Your task to perform on an android device: open app "Google Home" Image 0: 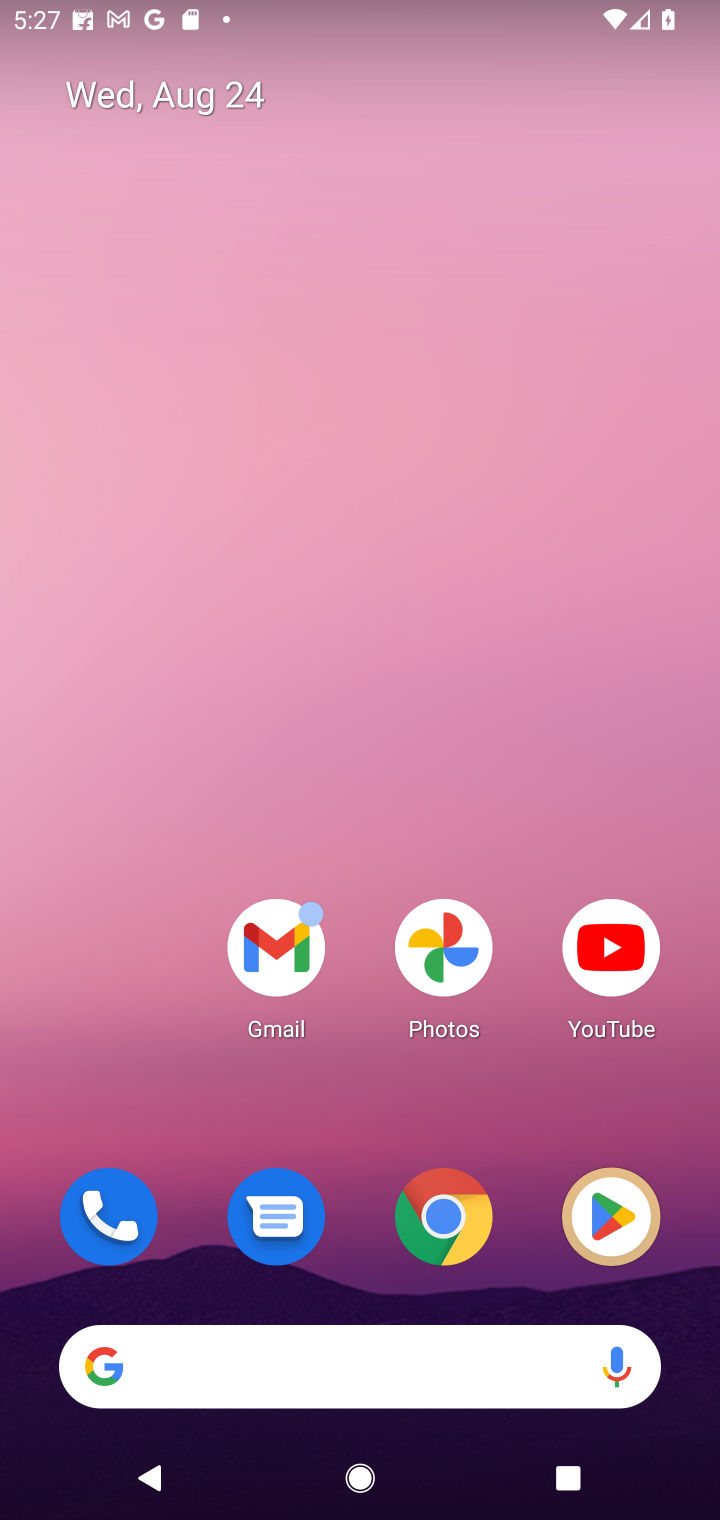
Step 0: click (614, 1225)
Your task to perform on an android device: open app "Google Home" Image 1: 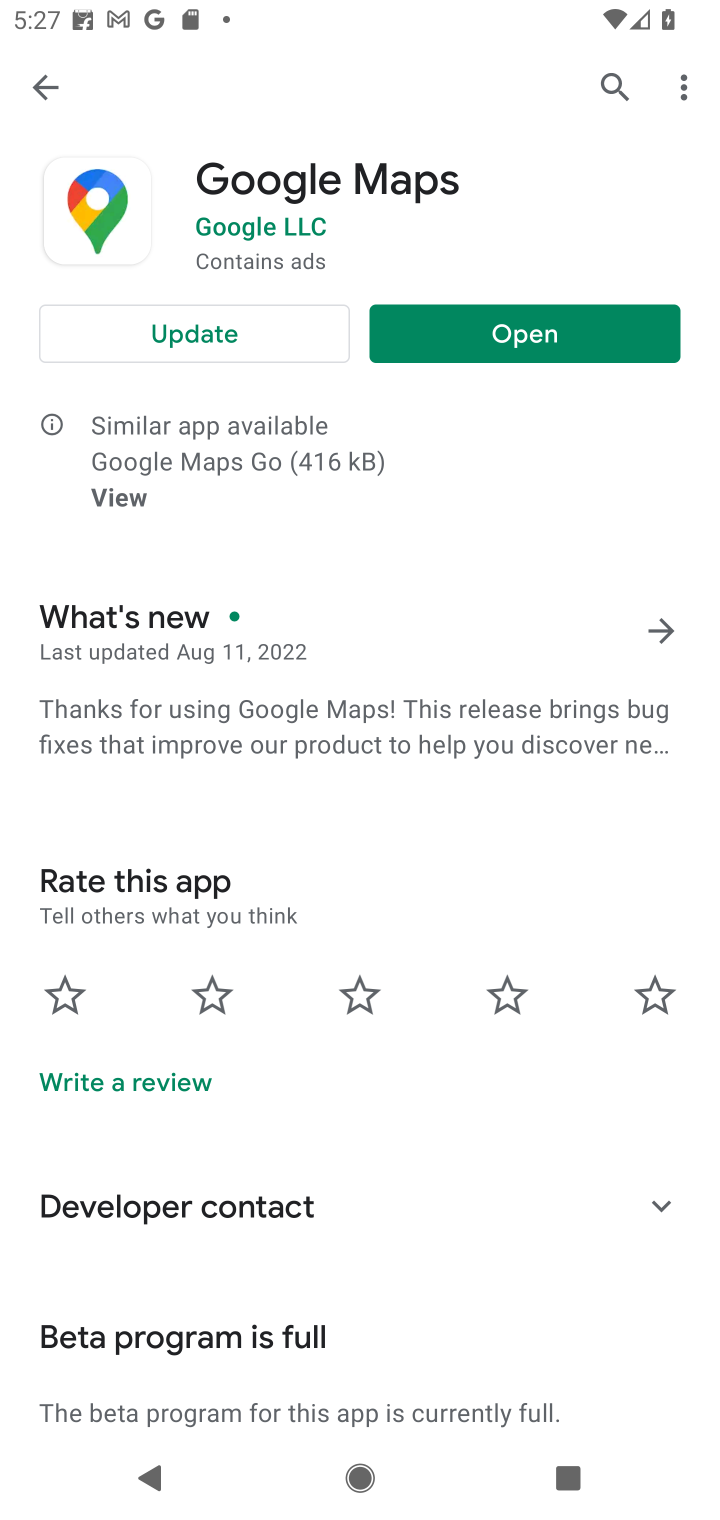
Step 1: click (617, 77)
Your task to perform on an android device: open app "Google Home" Image 2: 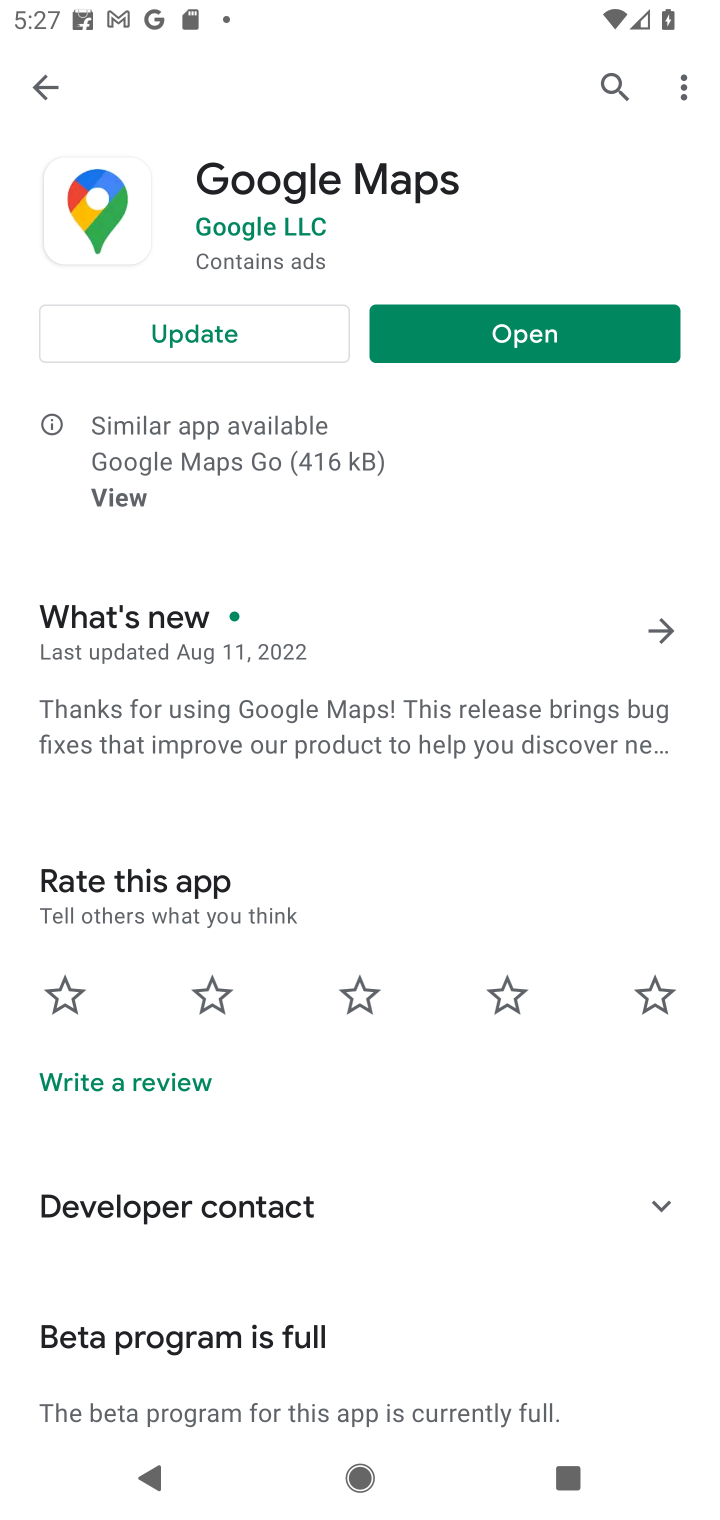
Step 2: click (617, 87)
Your task to perform on an android device: open app "Google Home" Image 3: 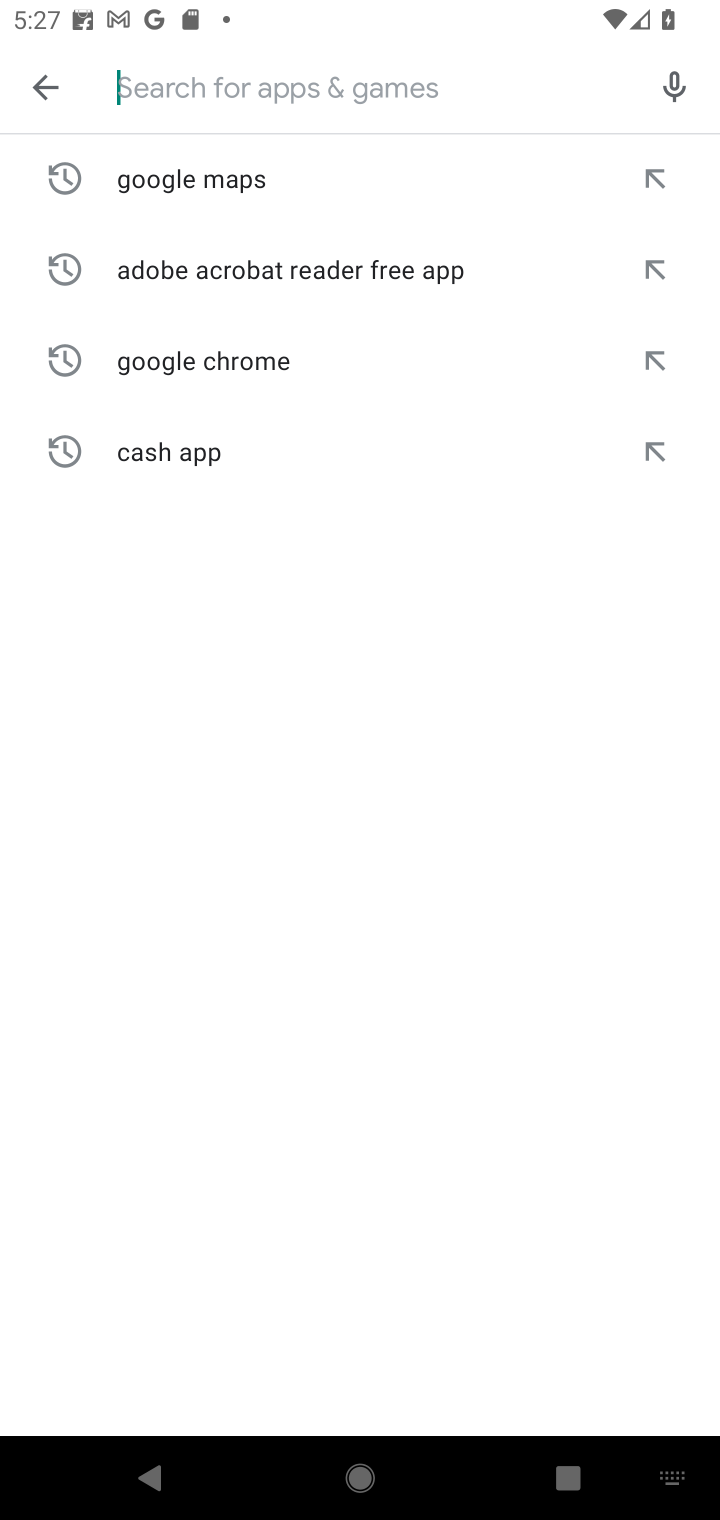
Step 3: type "Google Home"
Your task to perform on an android device: open app "Google Home" Image 4: 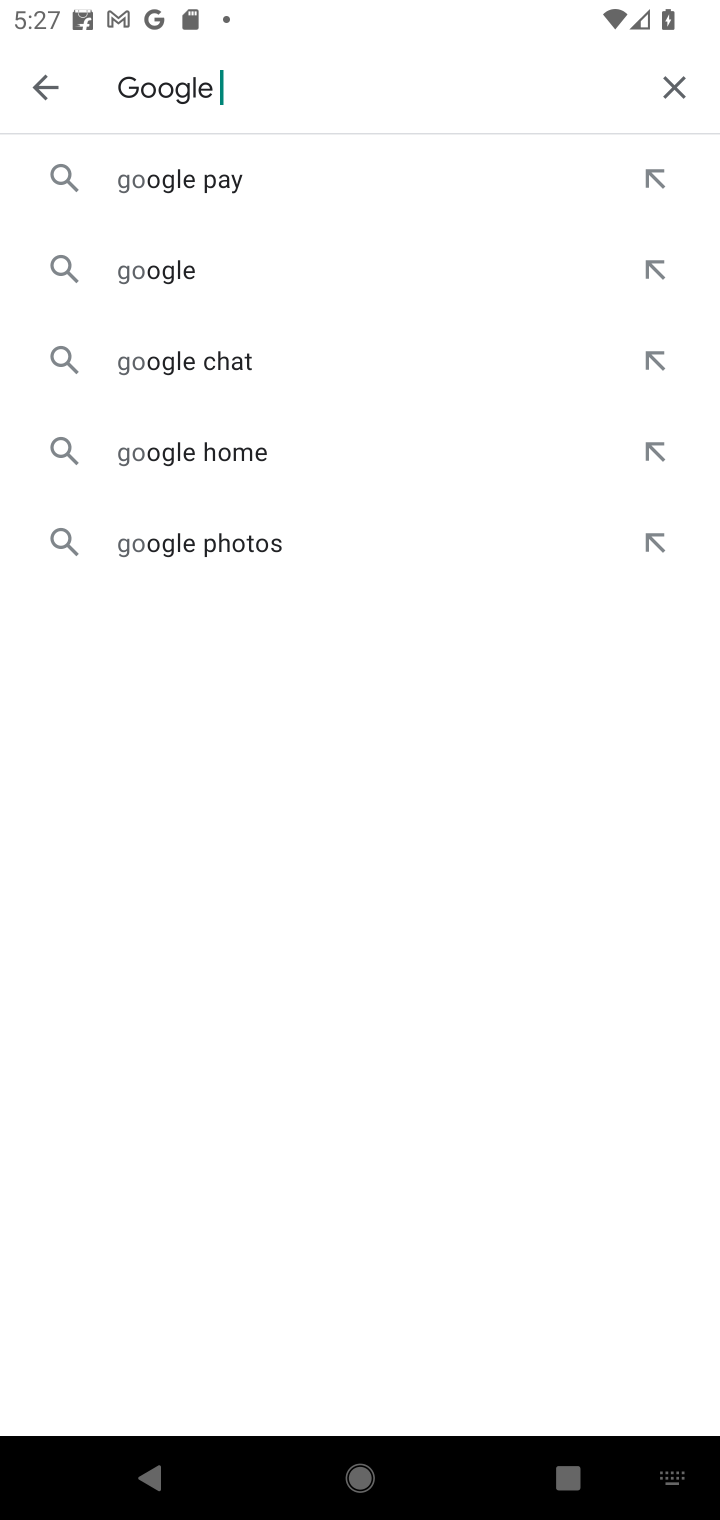
Step 4: type ""
Your task to perform on an android device: open app "Google Home" Image 5: 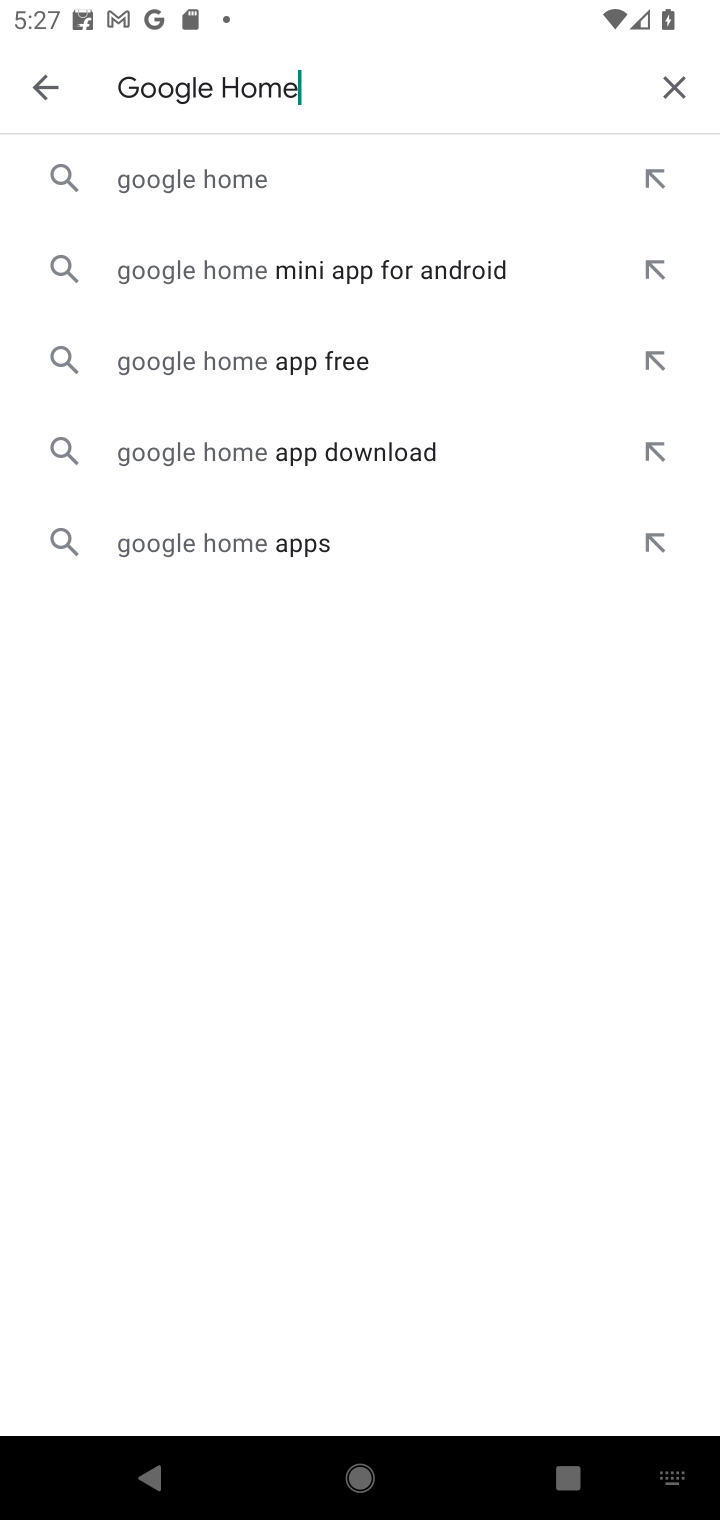
Step 5: click (273, 186)
Your task to perform on an android device: open app "Google Home" Image 6: 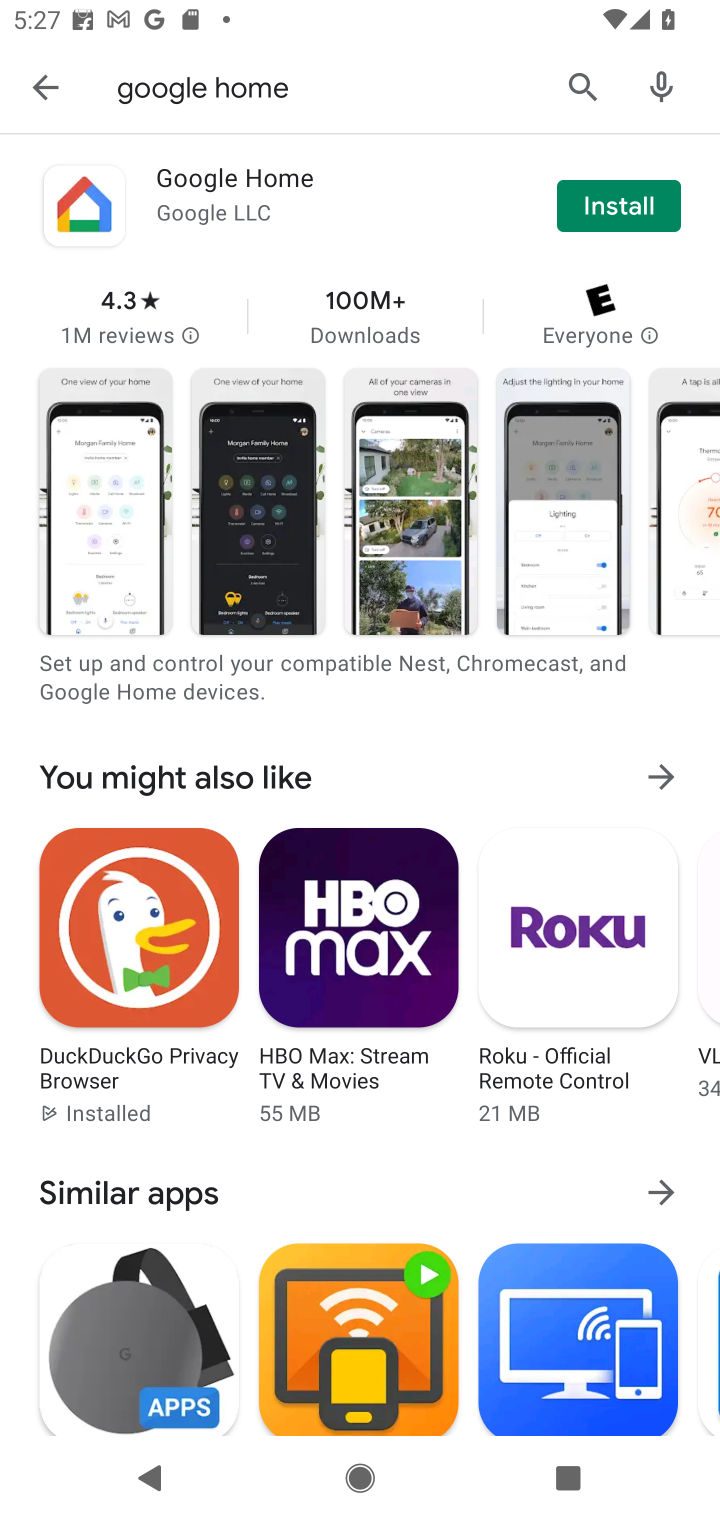
Step 6: click (390, 215)
Your task to perform on an android device: open app "Google Home" Image 7: 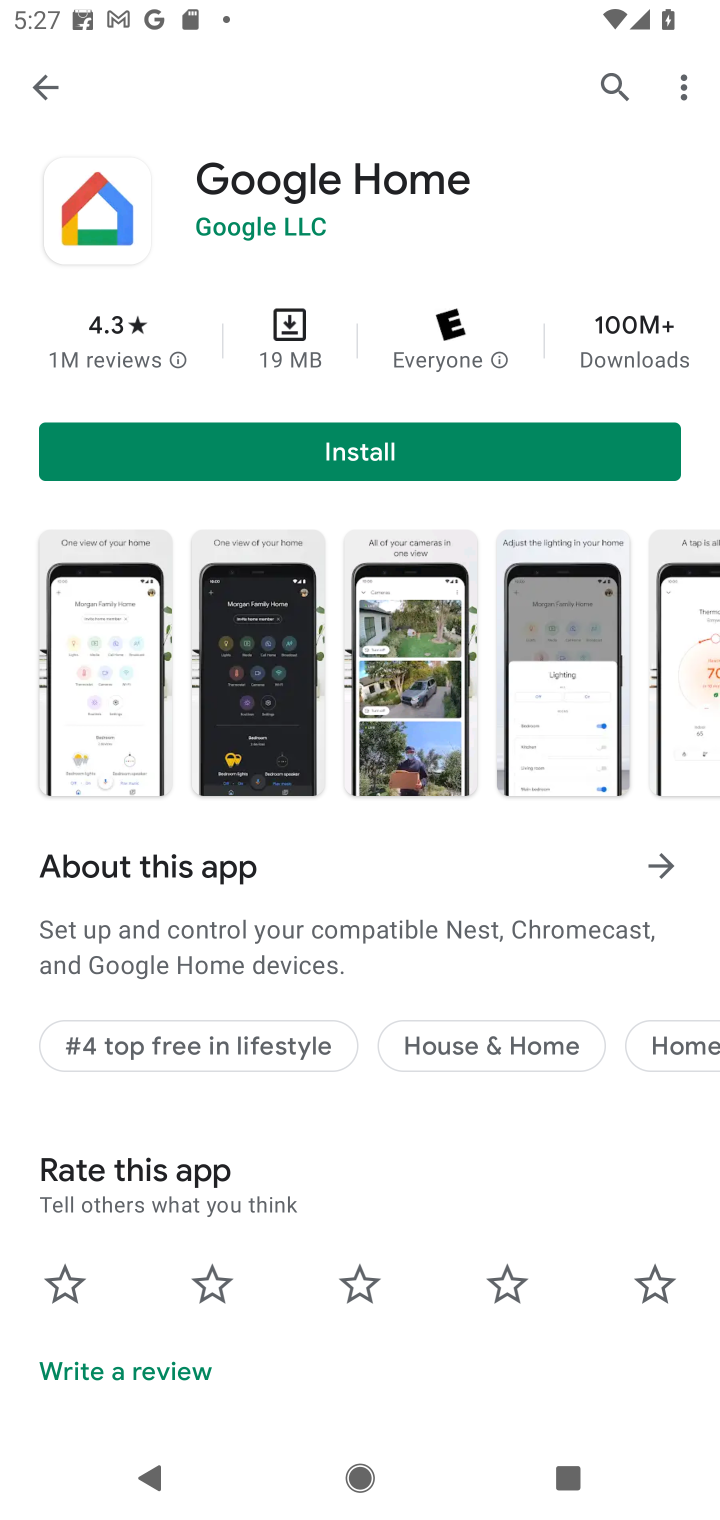
Step 7: task complete